Your task to perform on an android device: make emails show in primary in the gmail app Image 0: 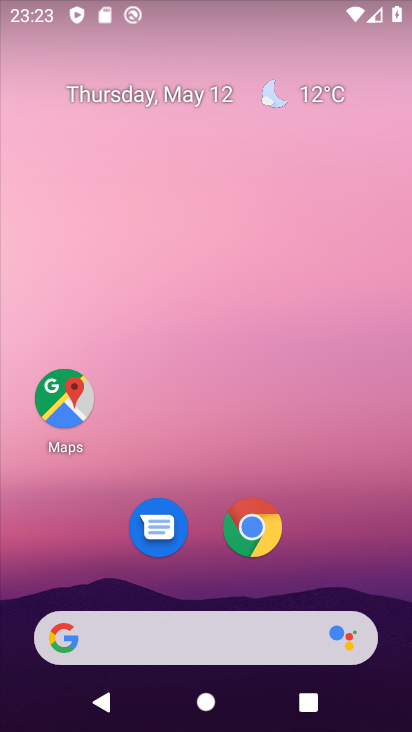
Step 0: press home button
Your task to perform on an android device: make emails show in primary in the gmail app Image 1: 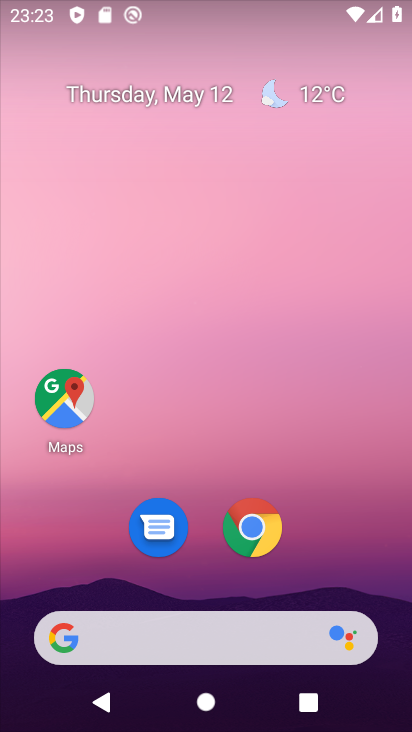
Step 1: drag from (15, 589) to (273, 84)
Your task to perform on an android device: make emails show in primary in the gmail app Image 2: 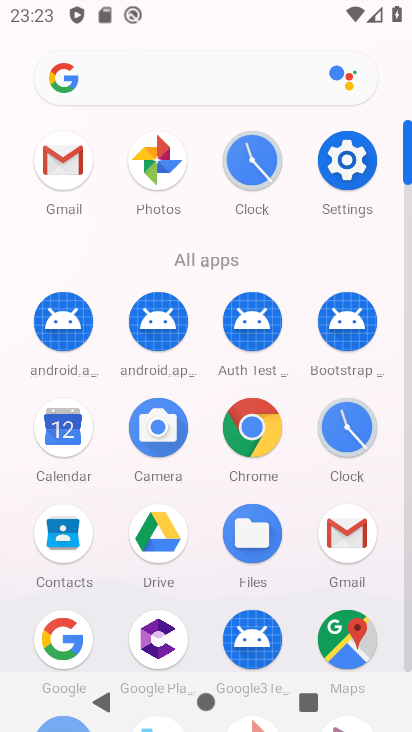
Step 2: click (364, 534)
Your task to perform on an android device: make emails show in primary in the gmail app Image 3: 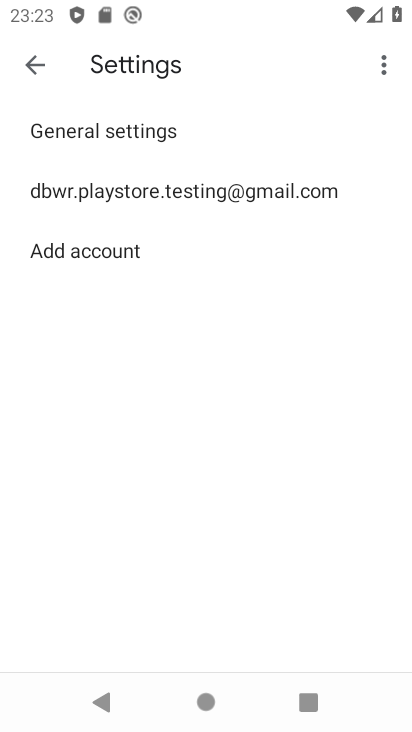
Step 3: click (96, 208)
Your task to perform on an android device: make emails show in primary in the gmail app Image 4: 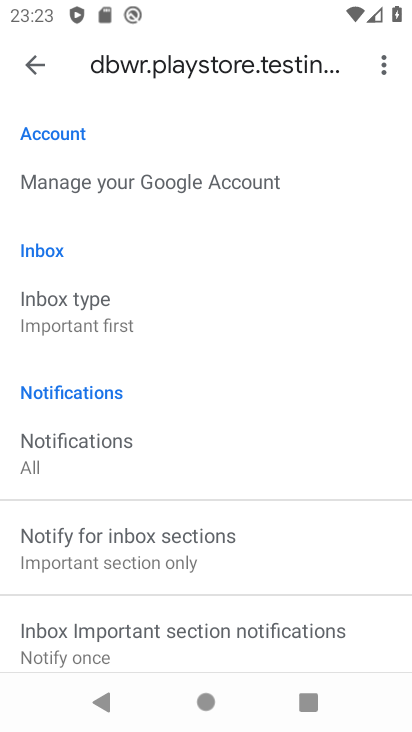
Step 4: task complete